Your task to perform on an android device: Open my contact list Image 0: 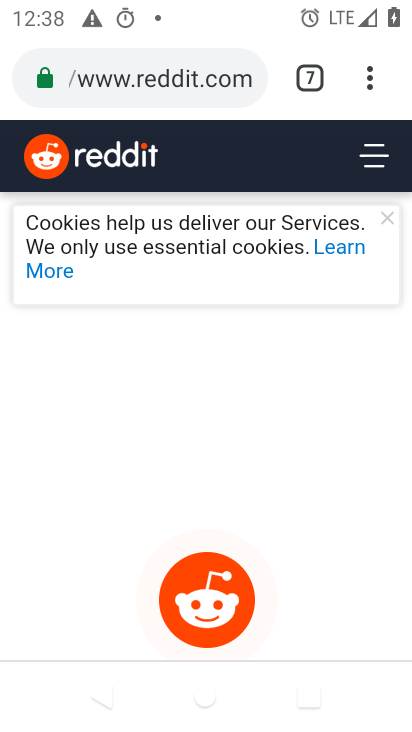
Step 0: press back button
Your task to perform on an android device: Open my contact list Image 1: 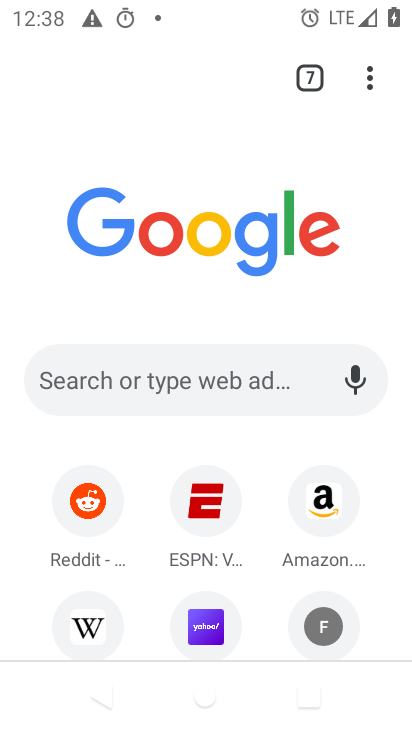
Step 1: press back button
Your task to perform on an android device: Open my contact list Image 2: 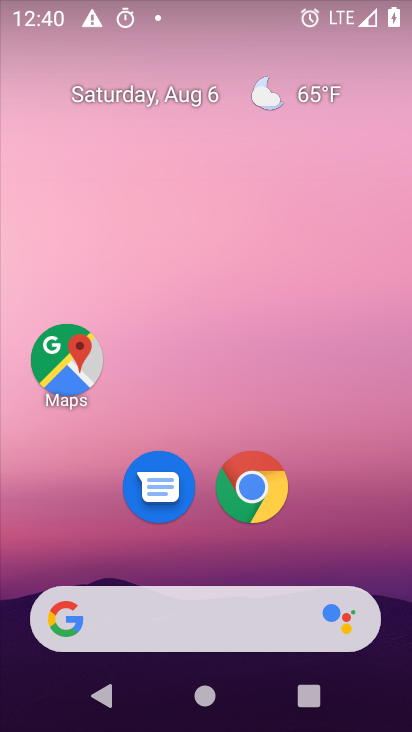
Step 2: drag from (192, 293) to (192, 50)
Your task to perform on an android device: Open my contact list Image 3: 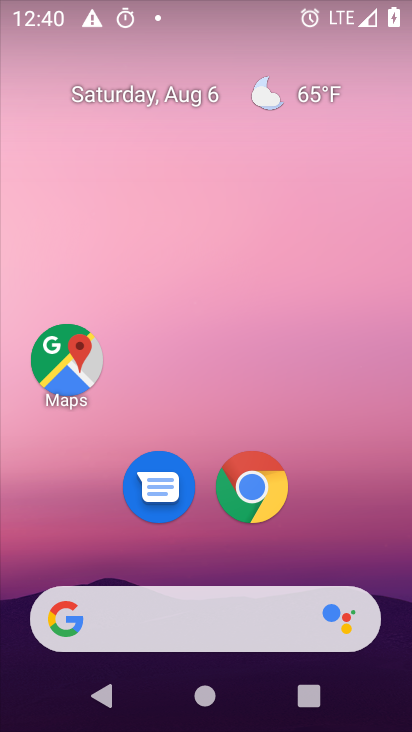
Step 3: drag from (190, 487) to (239, 28)
Your task to perform on an android device: Open my contact list Image 4: 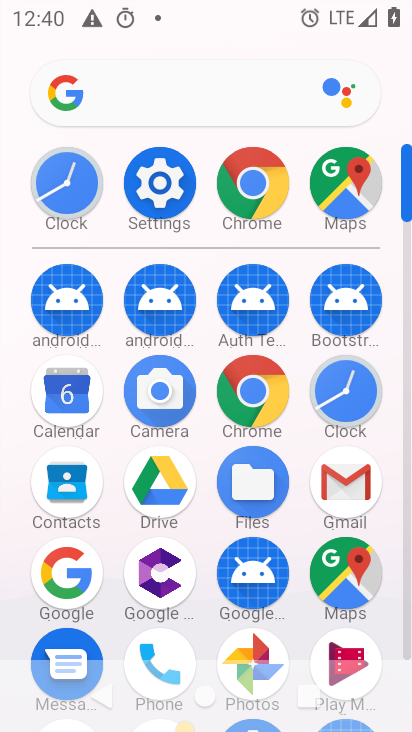
Step 4: click (57, 487)
Your task to perform on an android device: Open my contact list Image 5: 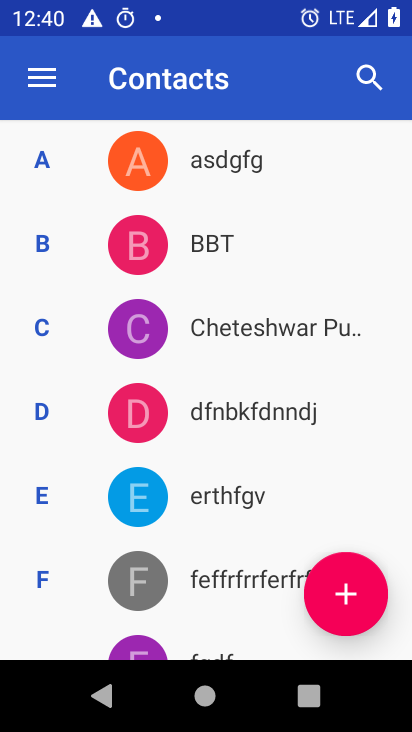
Step 5: task complete